Your task to perform on an android device: turn off sleep mode Image 0: 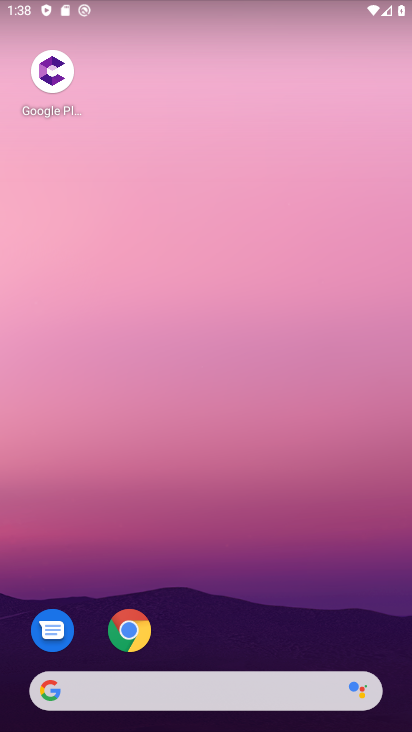
Step 0: drag from (238, 8) to (280, 393)
Your task to perform on an android device: turn off sleep mode Image 1: 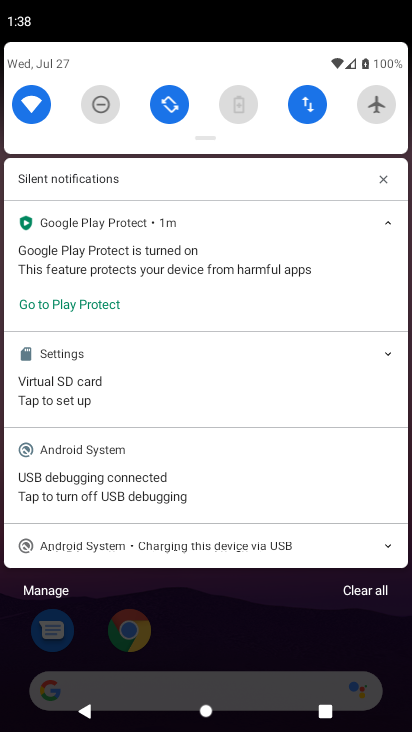
Step 1: drag from (210, 138) to (270, 588)
Your task to perform on an android device: turn off sleep mode Image 2: 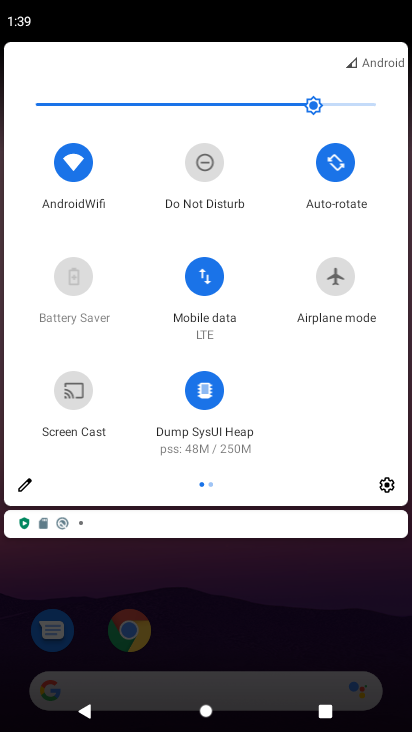
Step 2: click (27, 483)
Your task to perform on an android device: turn off sleep mode Image 3: 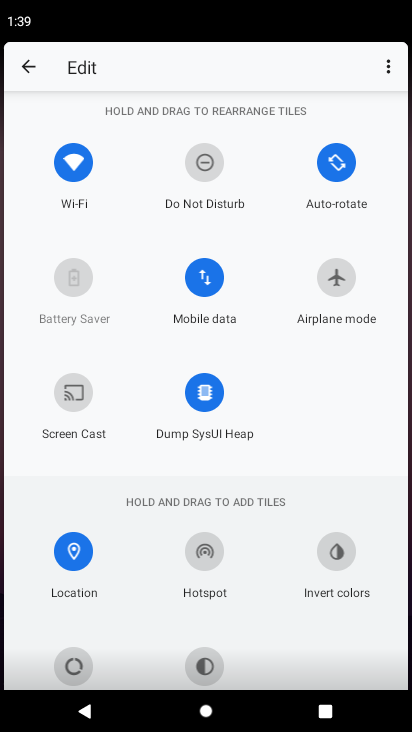
Step 3: task complete